Your task to perform on an android device: turn notification dots off Image 0: 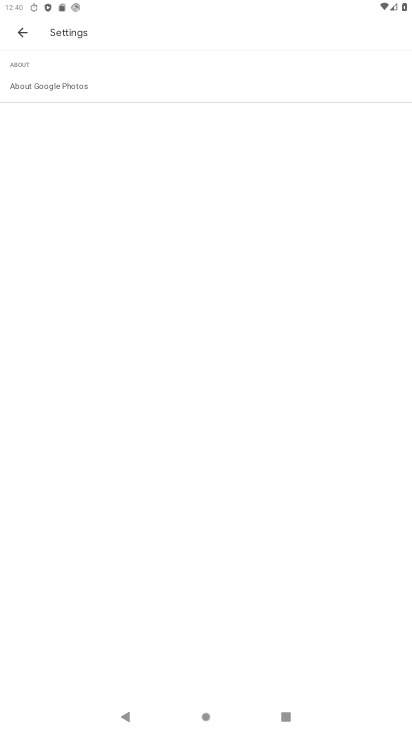
Step 0: press home button
Your task to perform on an android device: turn notification dots off Image 1: 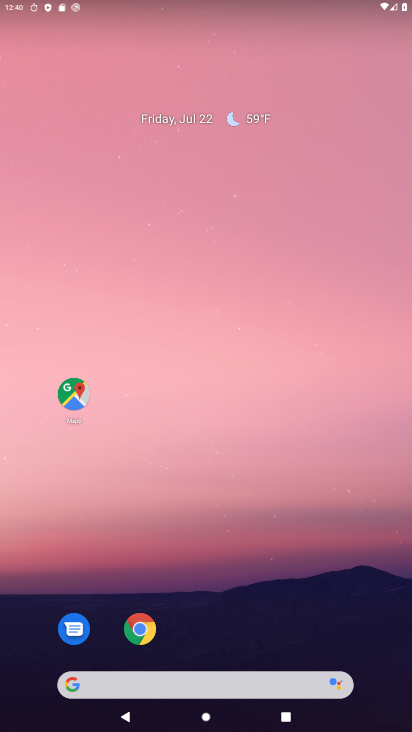
Step 1: drag from (302, 676) to (352, 8)
Your task to perform on an android device: turn notification dots off Image 2: 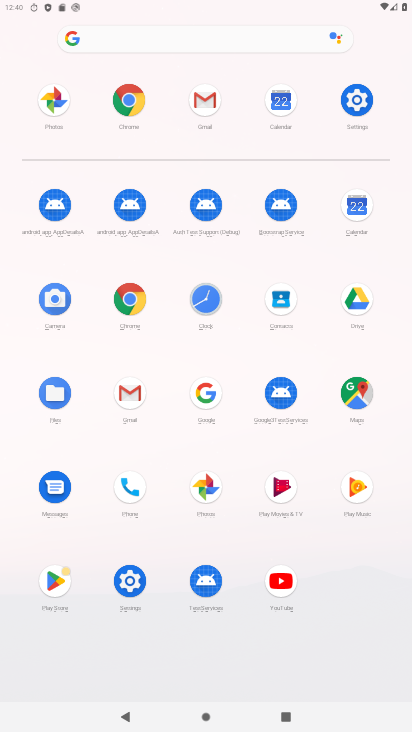
Step 2: click (353, 93)
Your task to perform on an android device: turn notification dots off Image 3: 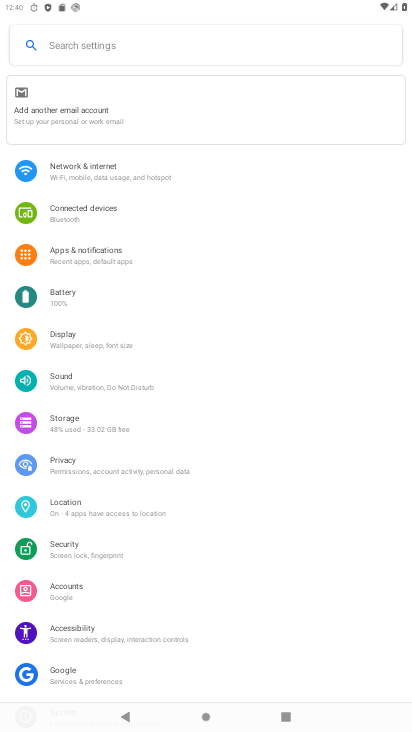
Step 3: click (121, 253)
Your task to perform on an android device: turn notification dots off Image 4: 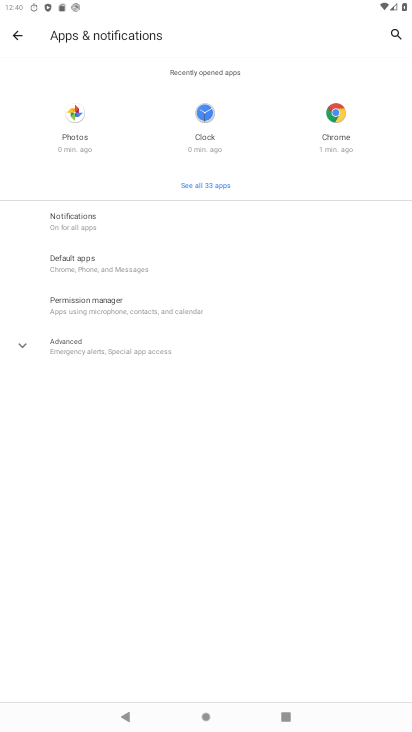
Step 4: click (149, 345)
Your task to perform on an android device: turn notification dots off Image 5: 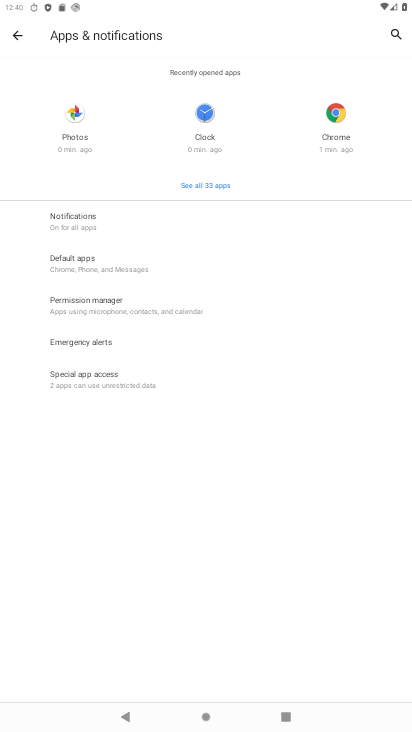
Step 5: click (93, 224)
Your task to perform on an android device: turn notification dots off Image 6: 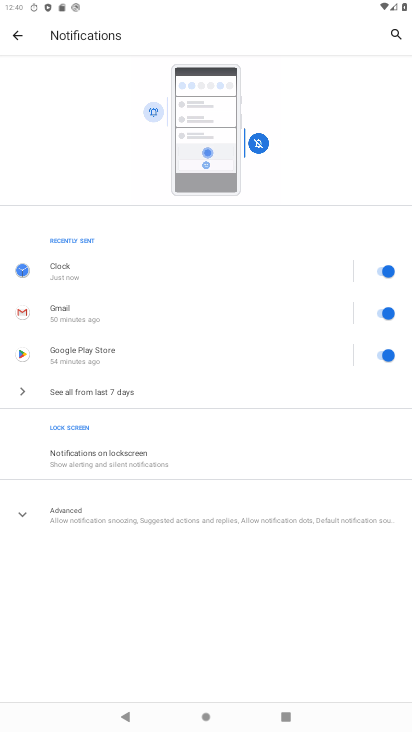
Step 6: click (147, 509)
Your task to perform on an android device: turn notification dots off Image 7: 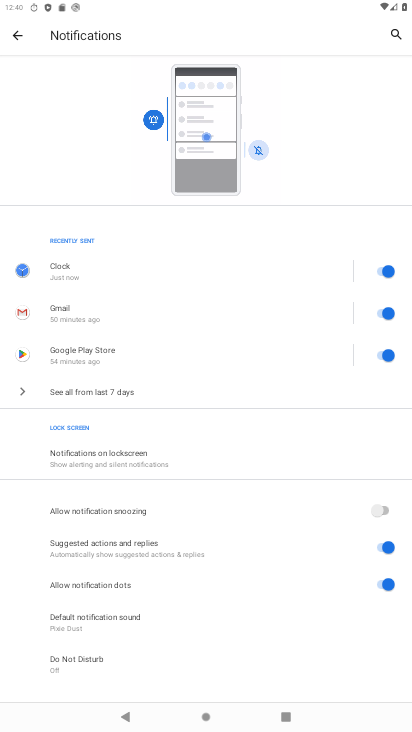
Step 7: click (387, 591)
Your task to perform on an android device: turn notification dots off Image 8: 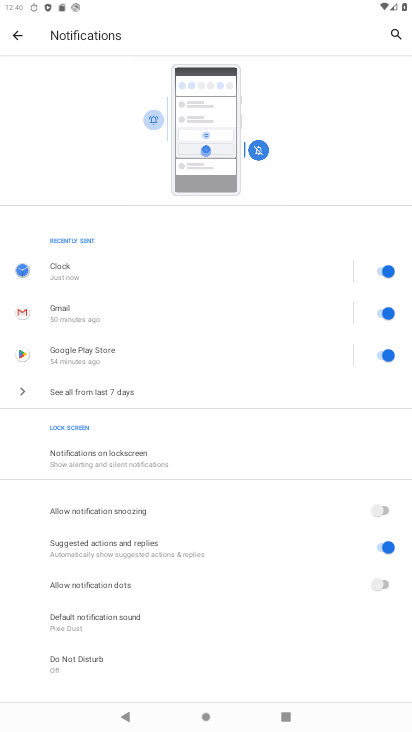
Step 8: task complete